Your task to perform on an android device: show emergency info Image 0: 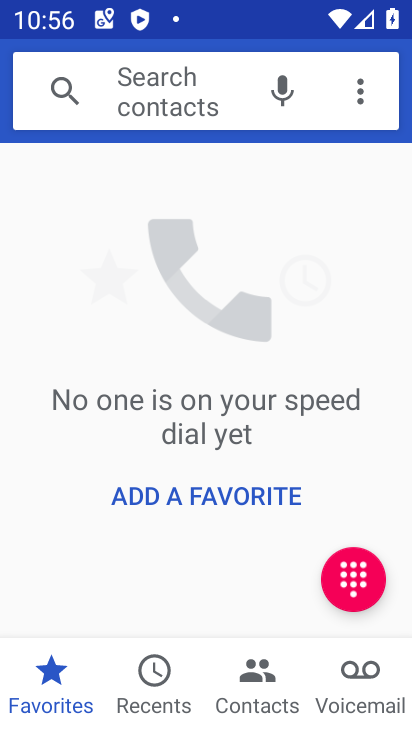
Step 0: press home button
Your task to perform on an android device: show emergency info Image 1: 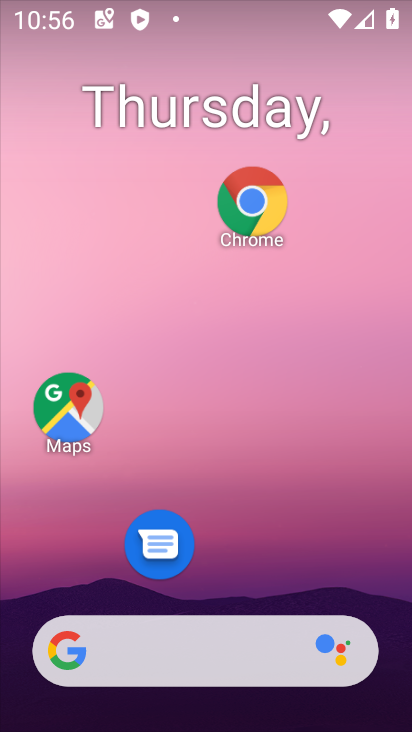
Step 1: drag from (205, 597) to (190, 14)
Your task to perform on an android device: show emergency info Image 2: 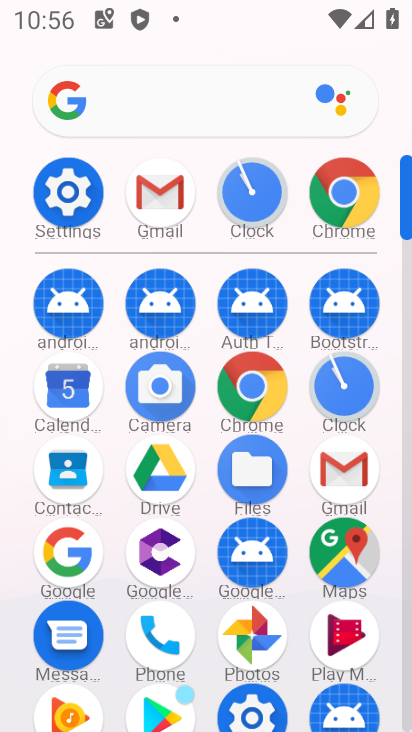
Step 2: click (257, 714)
Your task to perform on an android device: show emergency info Image 3: 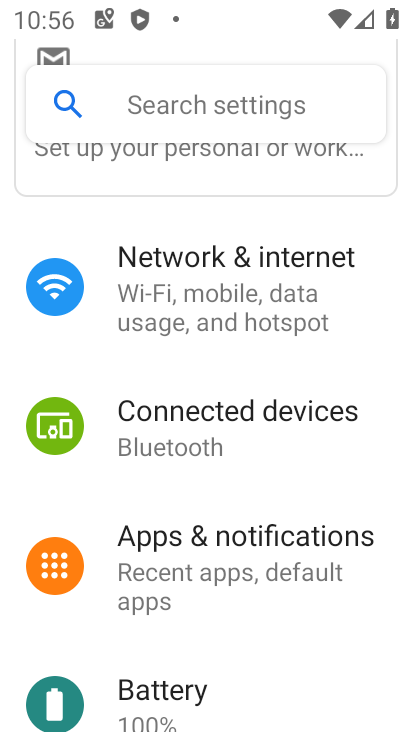
Step 3: drag from (230, 675) to (227, 88)
Your task to perform on an android device: show emergency info Image 4: 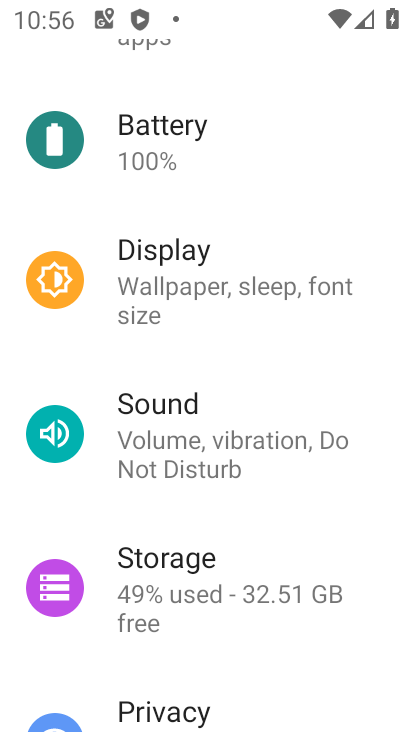
Step 4: drag from (217, 662) to (230, 59)
Your task to perform on an android device: show emergency info Image 5: 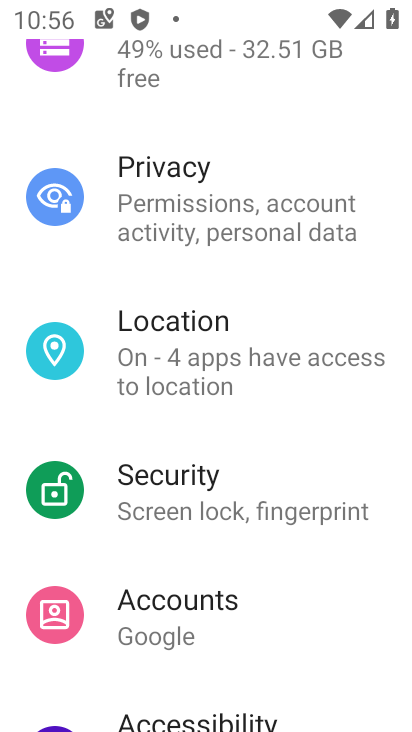
Step 5: drag from (232, 653) to (259, 82)
Your task to perform on an android device: show emergency info Image 6: 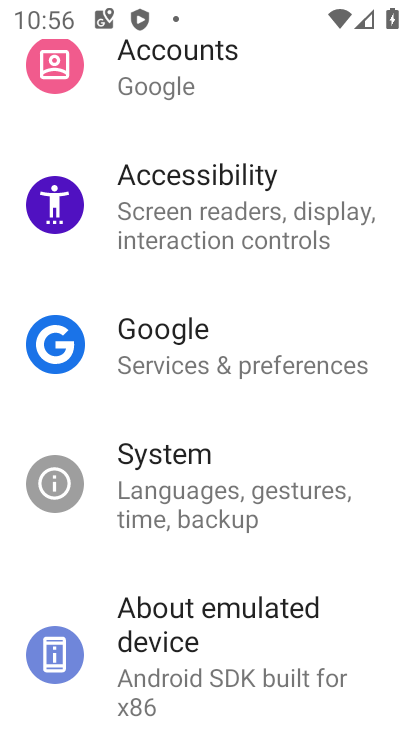
Step 6: click (226, 648)
Your task to perform on an android device: show emergency info Image 7: 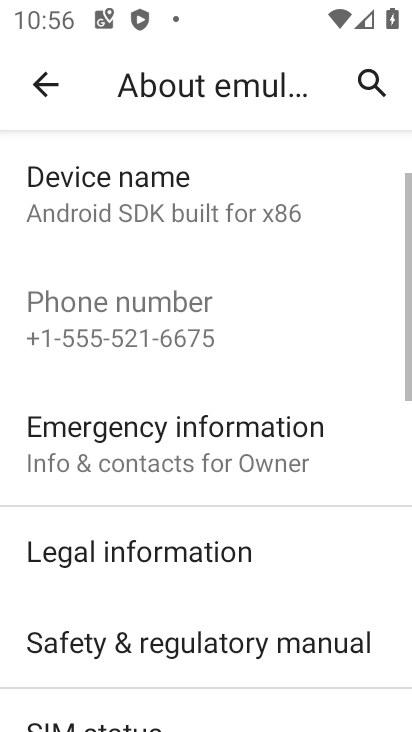
Step 7: click (158, 440)
Your task to perform on an android device: show emergency info Image 8: 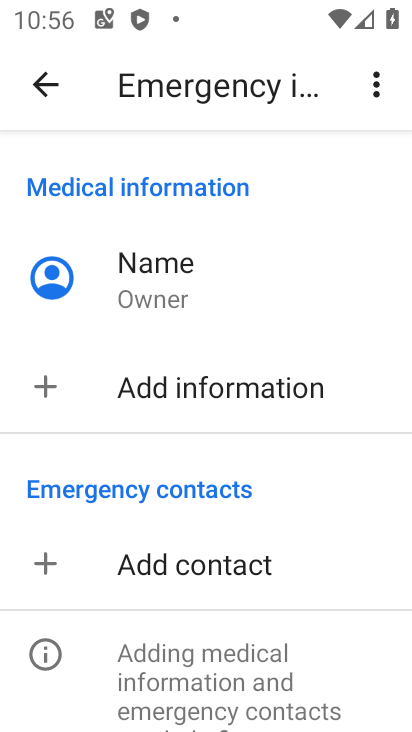
Step 8: task complete